Your task to perform on an android device: Open network settings Image 0: 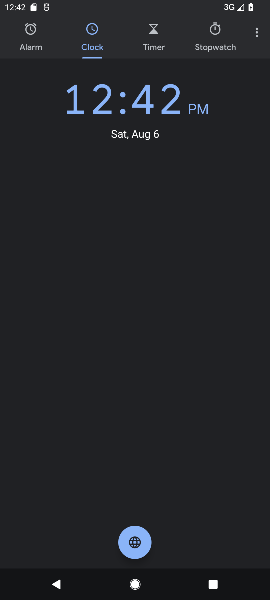
Step 0: press home button
Your task to perform on an android device: Open network settings Image 1: 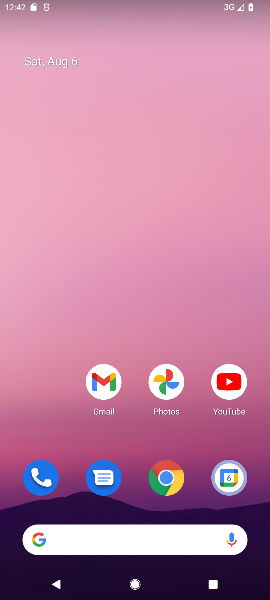
Step 1: drag from (134, 519) to (153, 261)
Your task to perform on an android device: Open network settings Image 2: 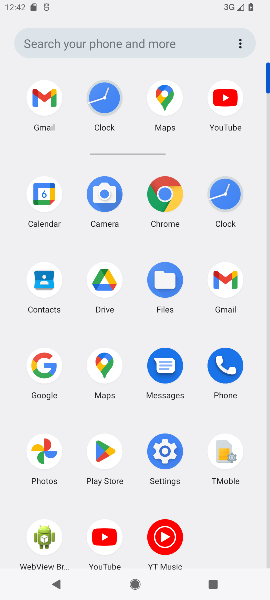
Step 2: click (162, 452)
Your task to perform on an android device: Open network settings Image 3: 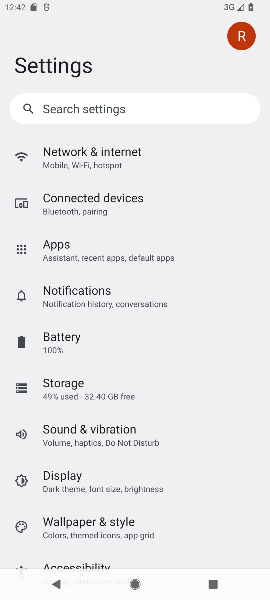
Step 3: click (91, 159)
Your task to perform on an android device: Open network settings Image 4: 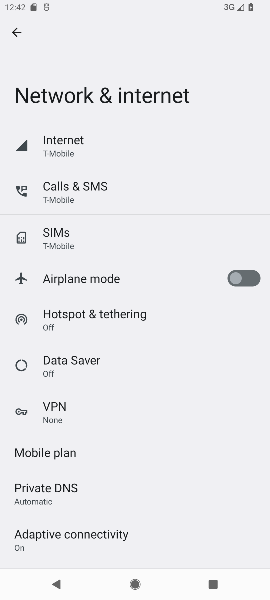
Step 4: task complete